Your task to perform on an android device: turn vacation reply on in the gmail app Image 0: 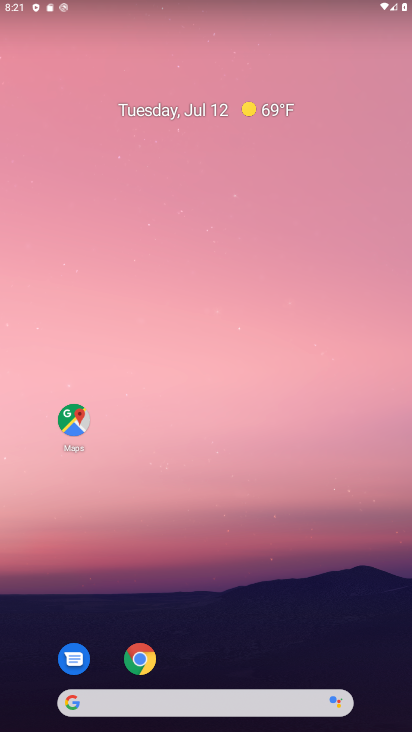
Step 0: drag from (170, 719) to (217, 303)
Your task to perform on an android device: turn vacation reply on in the gmail app Image 1: 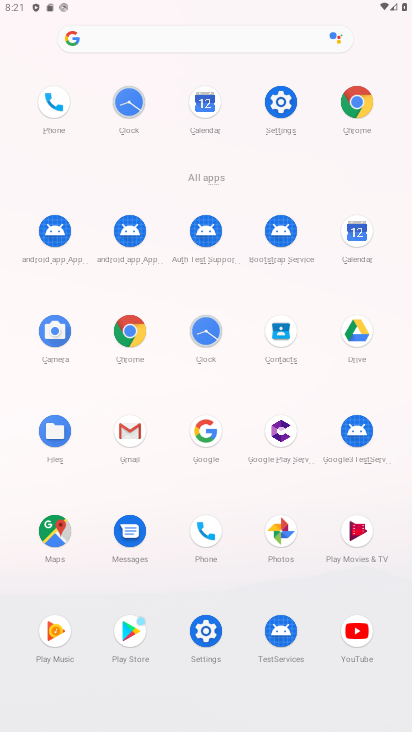
Step 1: click (127, 429)
Your task to perform on an android device: turn vacation reply on in the gmail app Image 2: 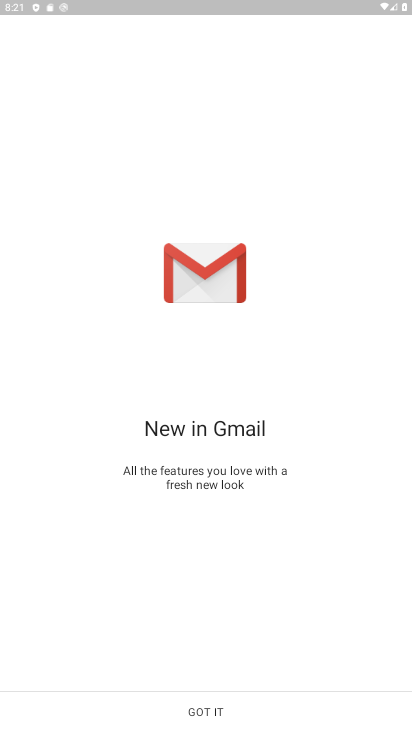
Step 2: click (204, 712)
Your task to perform on an android device: turn vacation reply on in the gmail app Image 3: 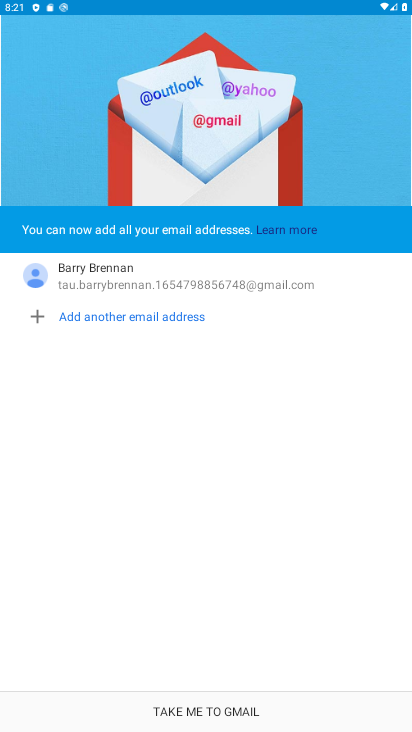
Step 3: click (195, 705)
Your task to perform on an android device: turn vacation reply on in the gmail app Image 4: 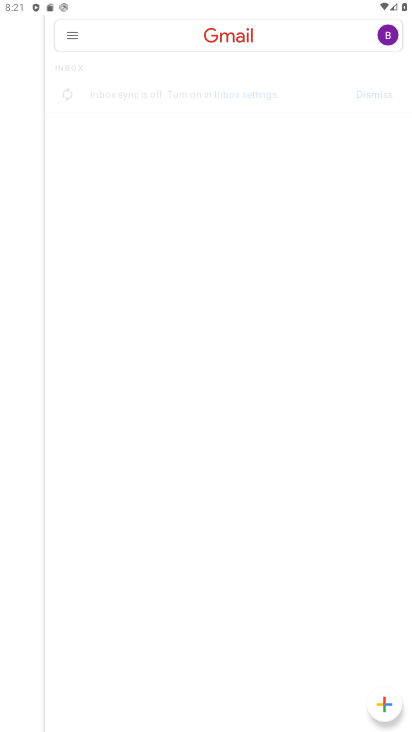
Step 4: click (67, 32)
Your task to perform on an android device: turn vacation reply on in the gmail app Image 5: 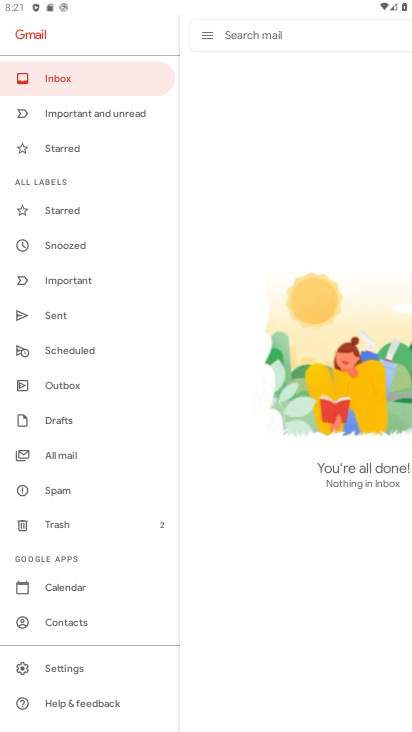
Step 5: click (61, 668)
Your task to perform on an android device: turn vacation reply on in the gmail app Image 6: 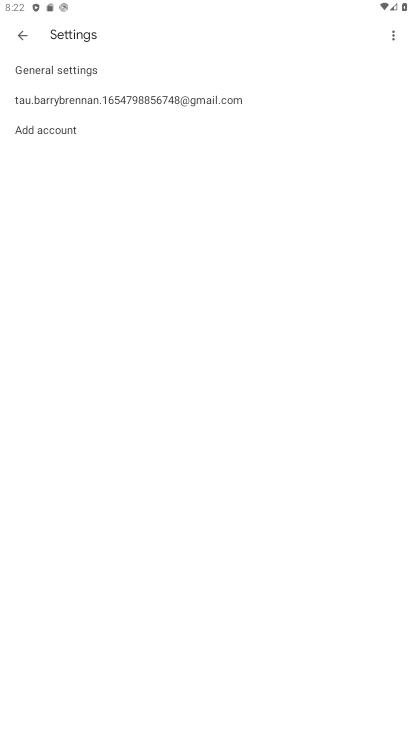
Step 6: click (151, 97)
Your task to perform on an android device: turn vacation reply on in the gmail app Image 7: 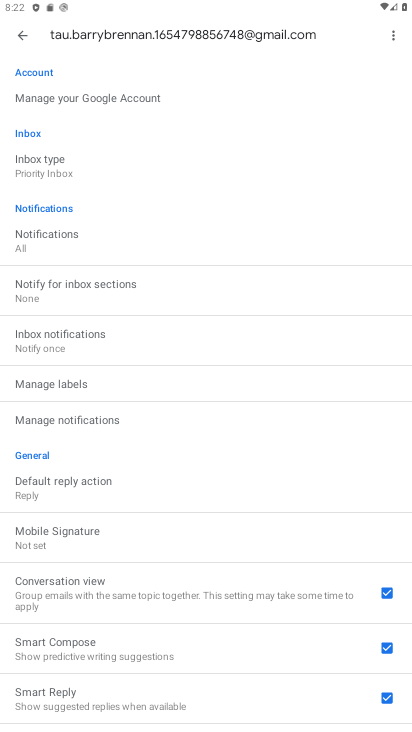
Step 7: drag from (125, 688) to (158, 346)
Your task to perform on an android device: turn vacation reply on in the gmail app Image 8: 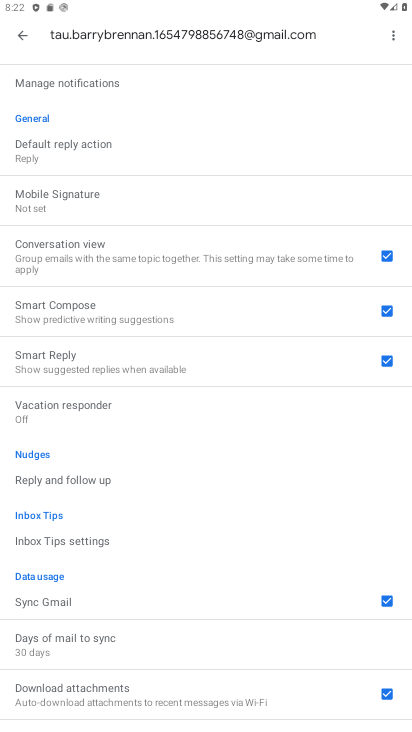
Step 8: click (88, 408)
Your task to perform on an android device: turn vacation reply on in the gmail app Image 9: 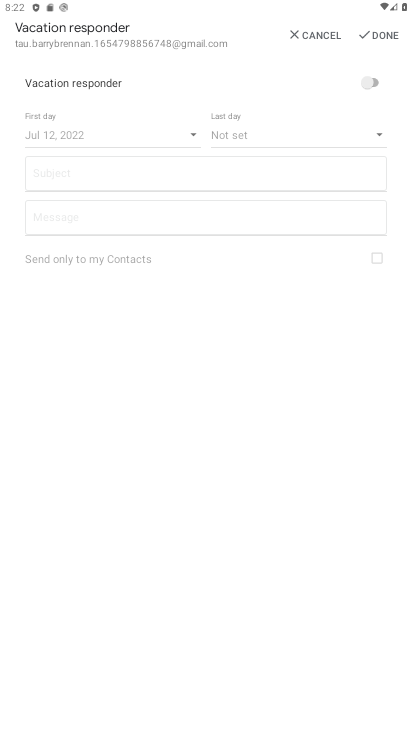
Step 9: click (371, 79)
Your task to perform on an android device: turn vacation reply on in the gmail app Image 10: 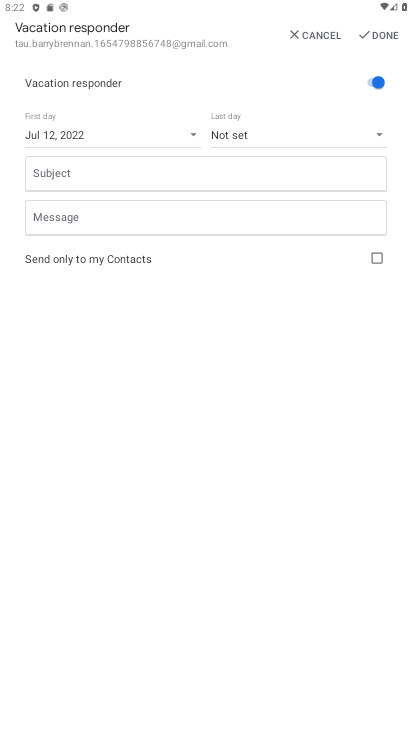
Step 10: task complete